Your task to perform on an android device: toggle show notifications on the lock screen Image 0: 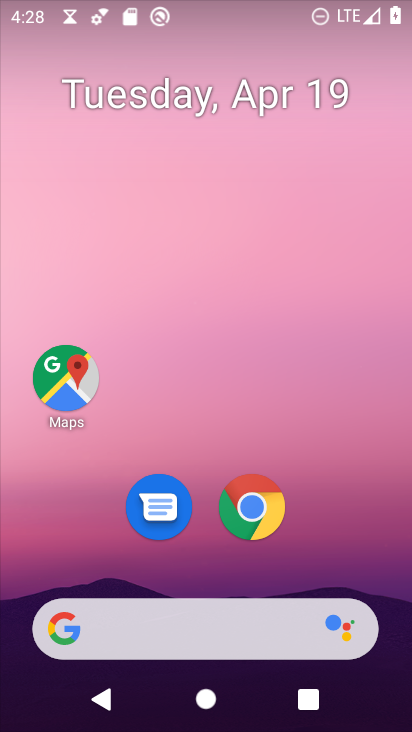
Step 0: drag from (342, 526) to (342, 63)
Your task to perform on an android device: toggle show notifications on the lock screen Image 1: 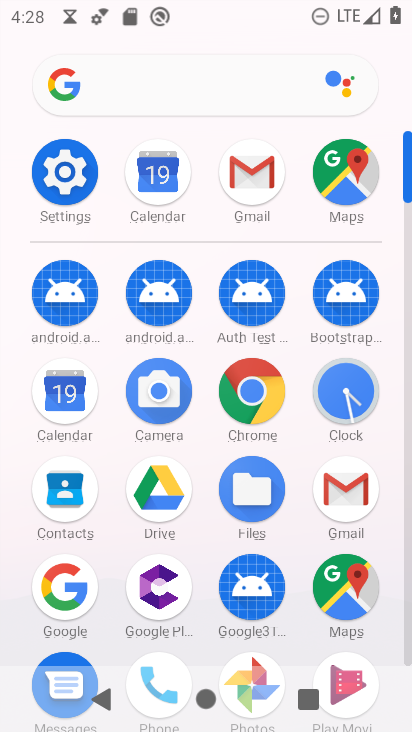
Step 1: click (55, 184)
Your task to perform on an android device: toggle show notifications on the lock screen Image 2: 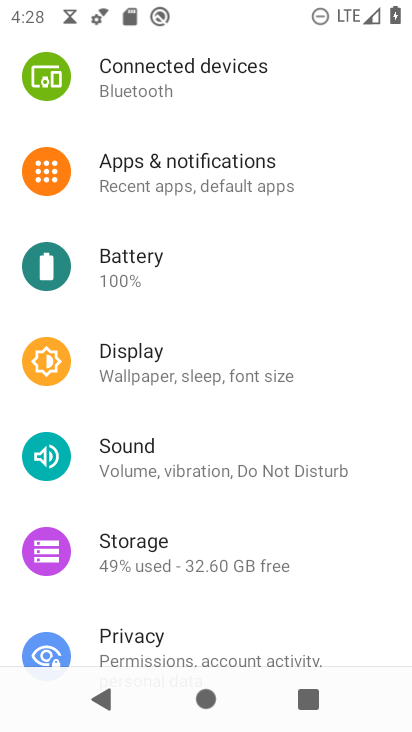
Step 2: click (207, 174)
Your task to perform on an android device: toggle show notifications on the lock screen Image 3: 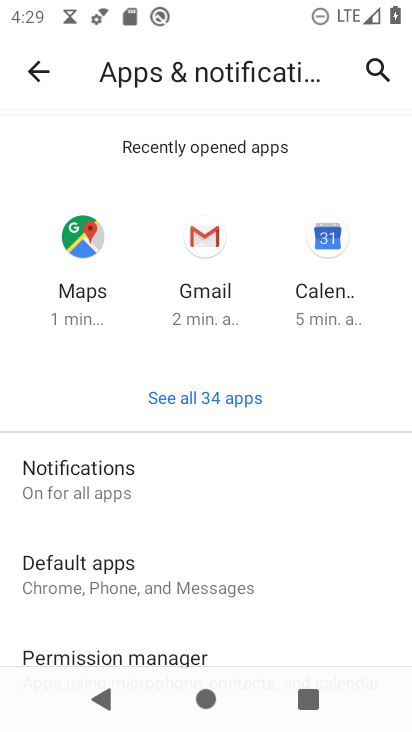
Step 3: click (135, 483)
Your task to perform on an android device: toggle show notifications on the lock screen Image 4: 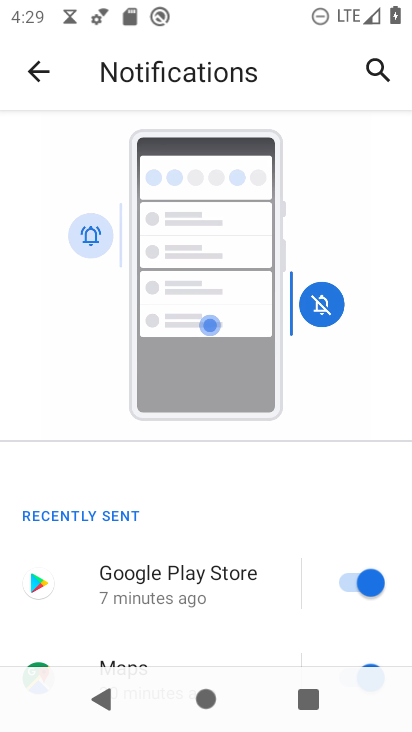
Step 4: drag from (132, 448) to (134, 397)
Your task to perform on an android device: toggle show notifications on the lock screen Image 5: 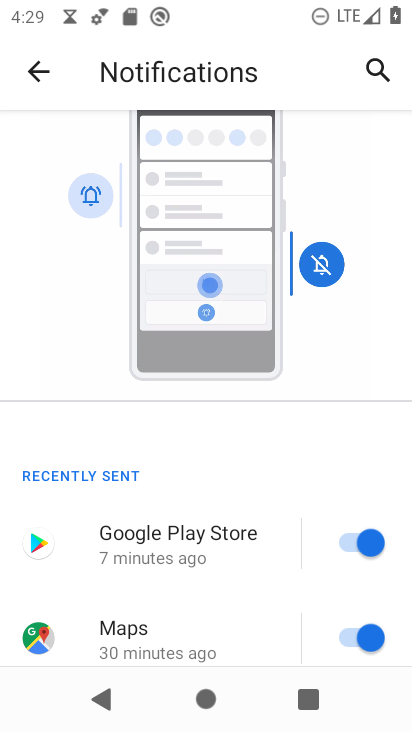
Step 5: drag from (155, 591) to (181, 470)
Your task to perform on an android device: toggle show notifications on the lock screen Image 6: 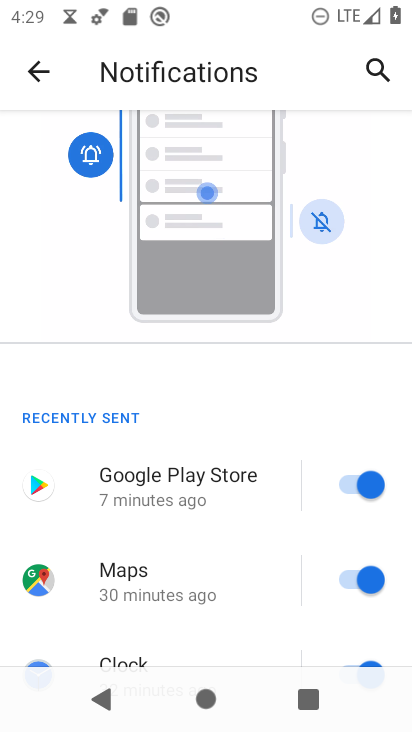
Step 6: drag from (201, 599) to (211, 434)
Your task to perform on an android device: toggle show notifications on the lock screen Image 7: 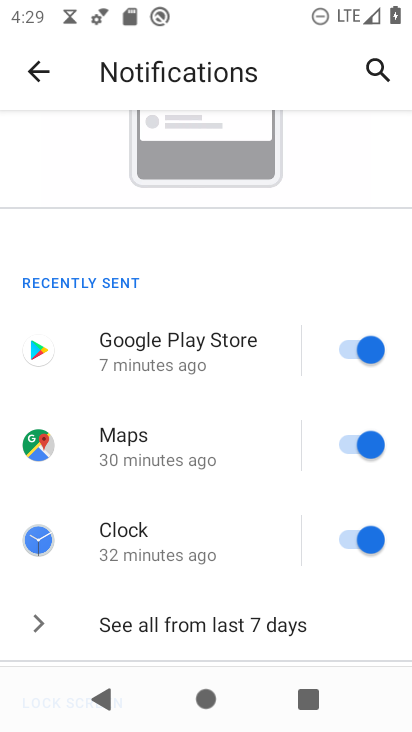
Step 7: drag from (206, 541) to (206, 371)
Your task to perform on an android device: toggle show notifications on the lock screen Image 8: 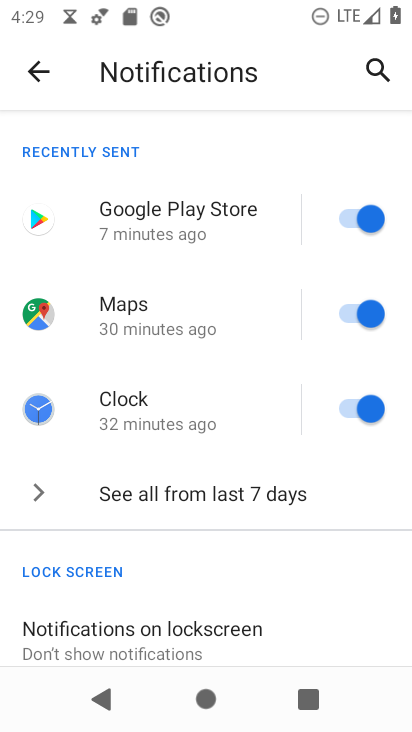
Step 8: drag from (145, 540) to (143, 379)
Your task to perform on an android device: toggle show notifications on the lock screen Image 9: 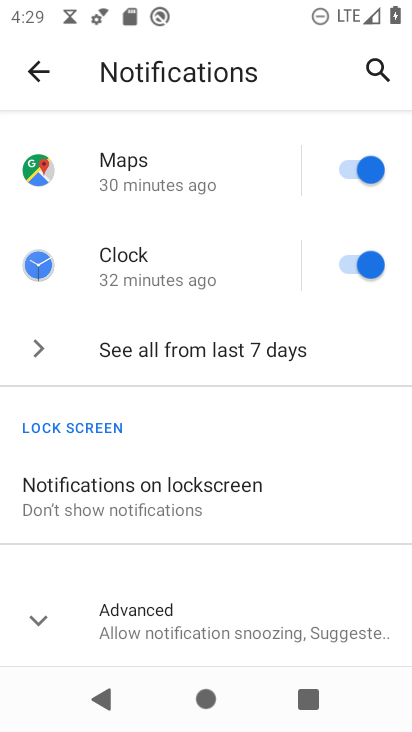
Step 9: drag from (179, 554) to (198, 381)
Your task to perform on an android device: toggle show notifications on the lock screen Image 10: 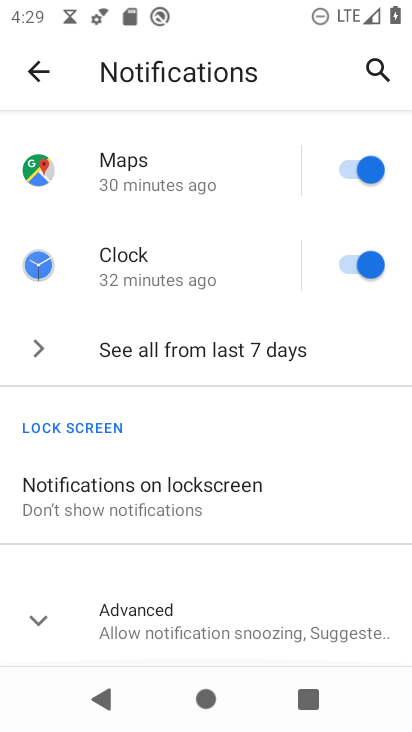
Step 10: click (179, 602)
Your task to perform on an android device: toggle show notifications on the lock screen Image 11: 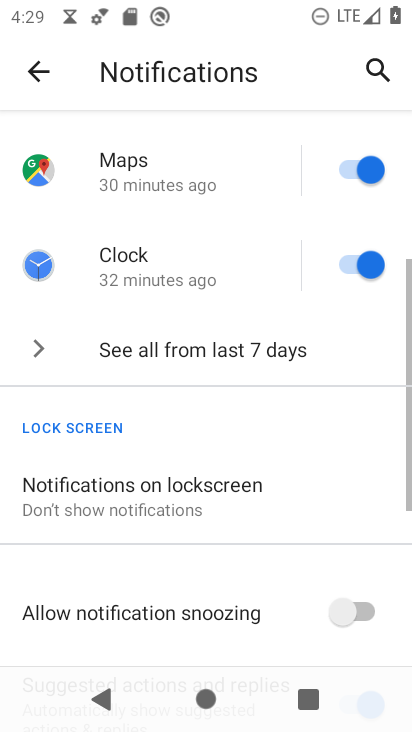
Step 11: click (184, 501)
Your task to perform on an android device: toggle show notifications on the lock screen Image 12: 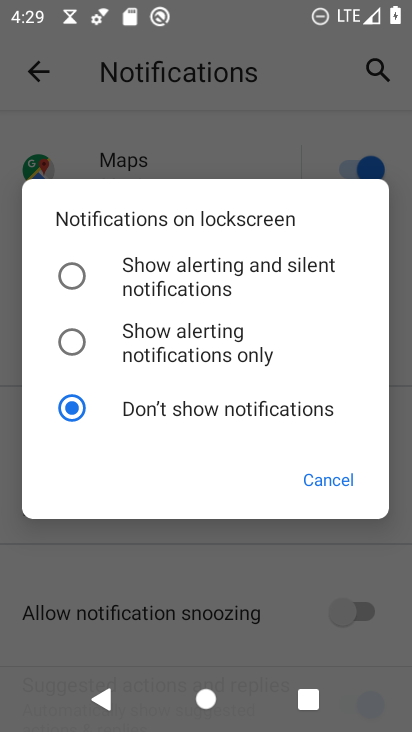
Step 12: click (202, 275)
Your task to perform on an android device: toggle show notifications on the lock screen Image 13: 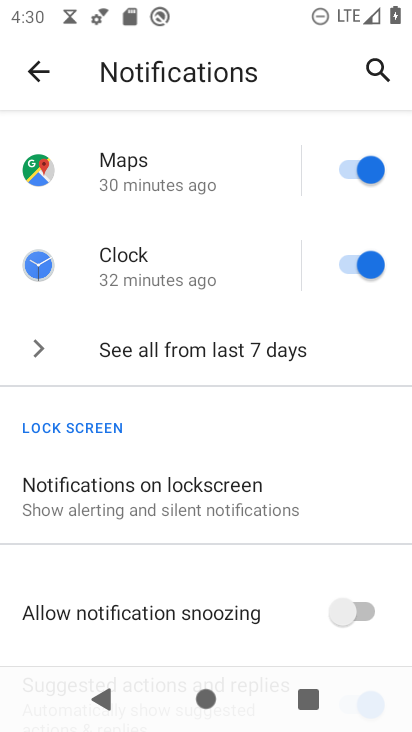
Step 13: task complete